Your task to perform on an android device: Open wifi settings Image 0: 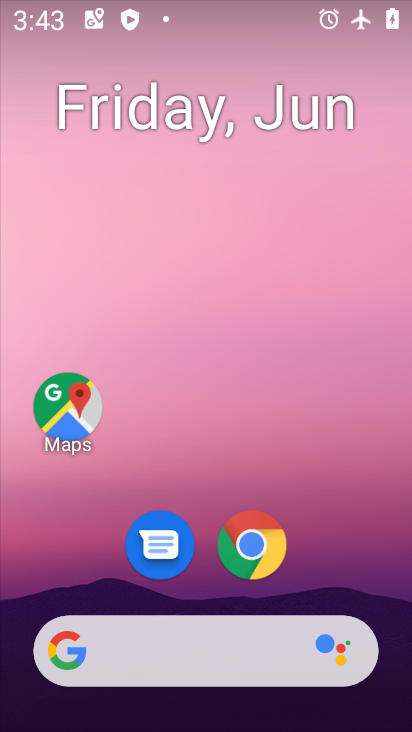
Step 0: drag from (326, 591) to (296, 16)
Your task to perform on an android device: Open wifi settings Image 1: 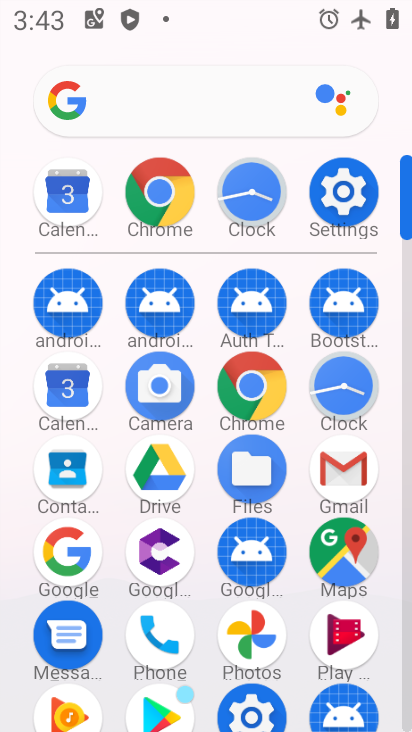
Step 1: click (343, 203)
Your task to perform on an android device: Open wifi settings Image 2: 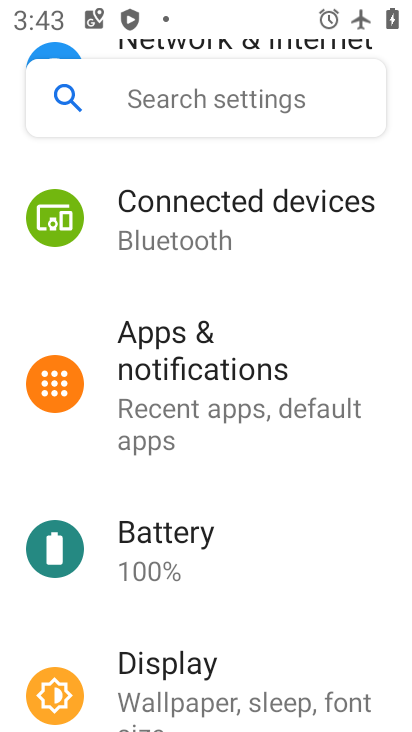
Step 2: drag from (259, 273) to (340, 686)
Your task to perform on an android device: Open wifi settings Image 3: 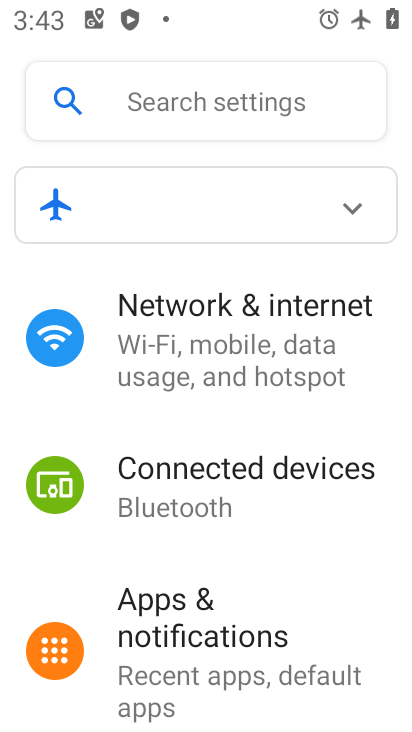
Step 3: click (161, 385)
Your task to perform on an android device: Open wifi settings Image 4: 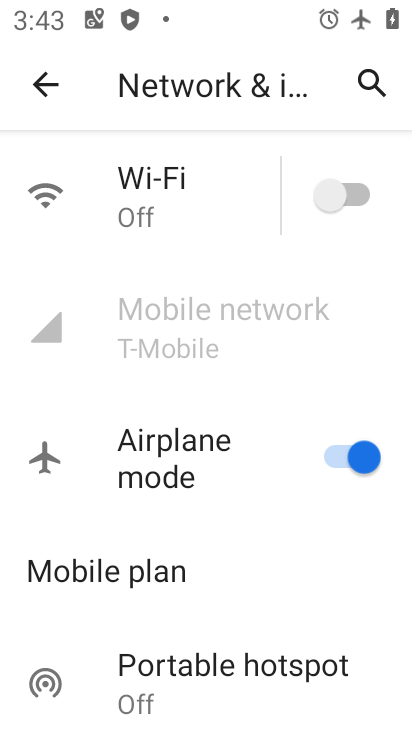
Step 4: click (129, 204)
Your task to perform on an android device: Open wifi settings Image 5: 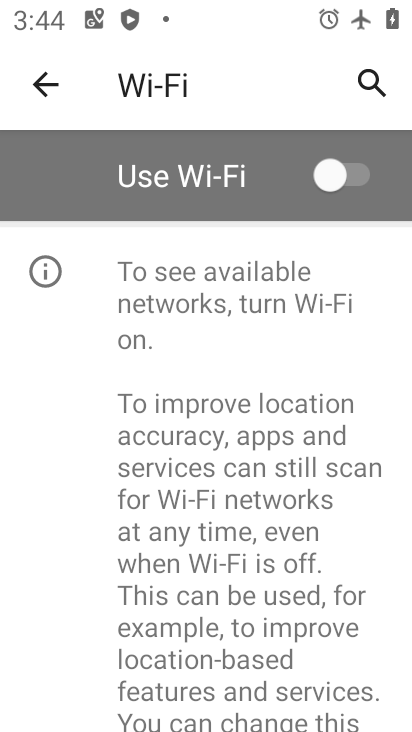
Step 5: task complete